Your task to perform on an android device: turn pop-ups off in chrome Image 0: 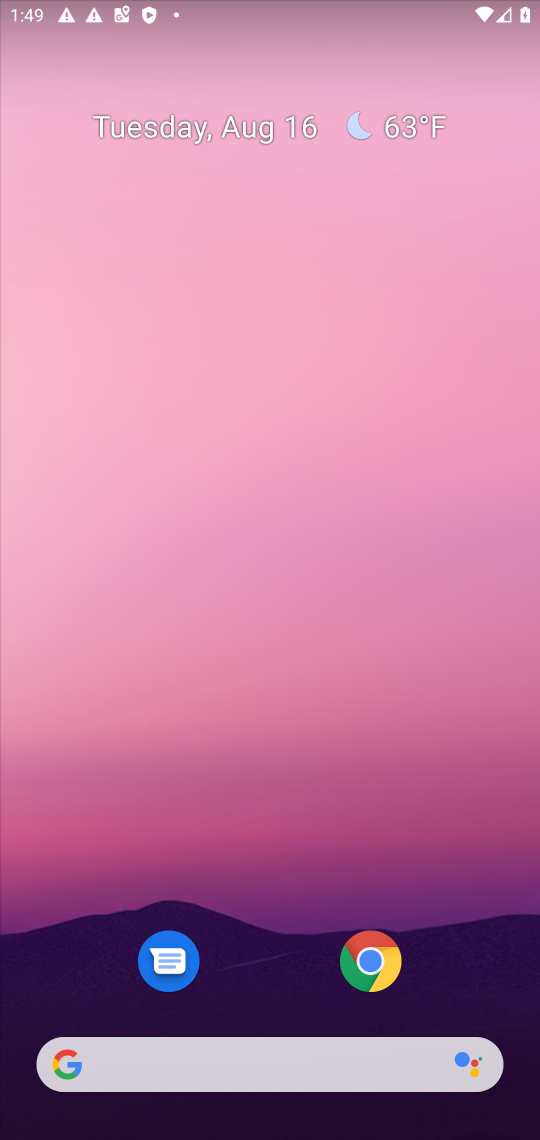
Step 0: drag from (499, 968) to (196, 11)
Your task to perform on an android device: turn pop-ups off in chrome Image 1: 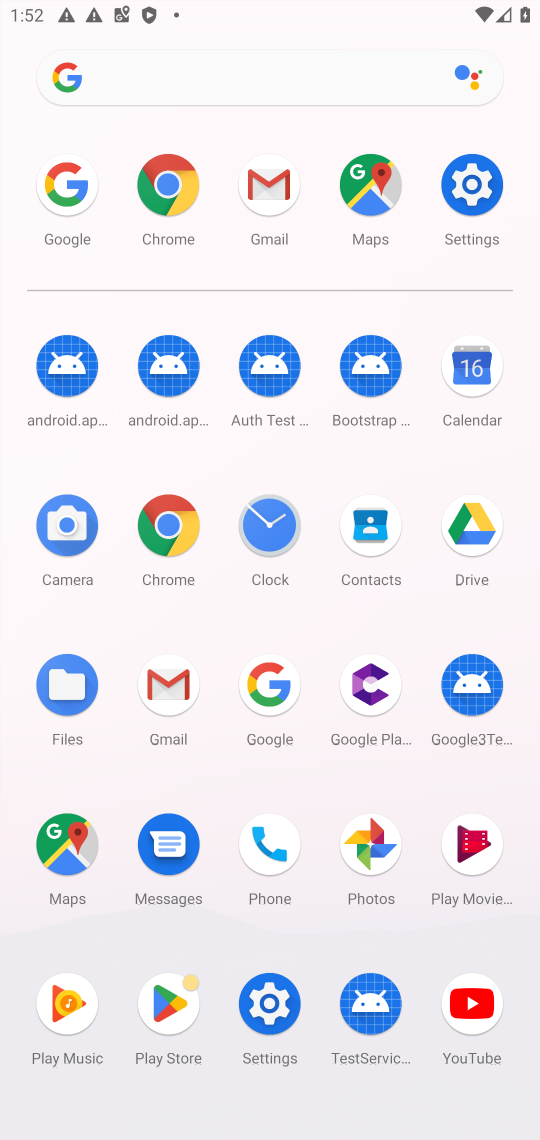
Step 1: click (157, 516)
Your task to perform on an android device: turn pop-ups off in chrome Image 2: 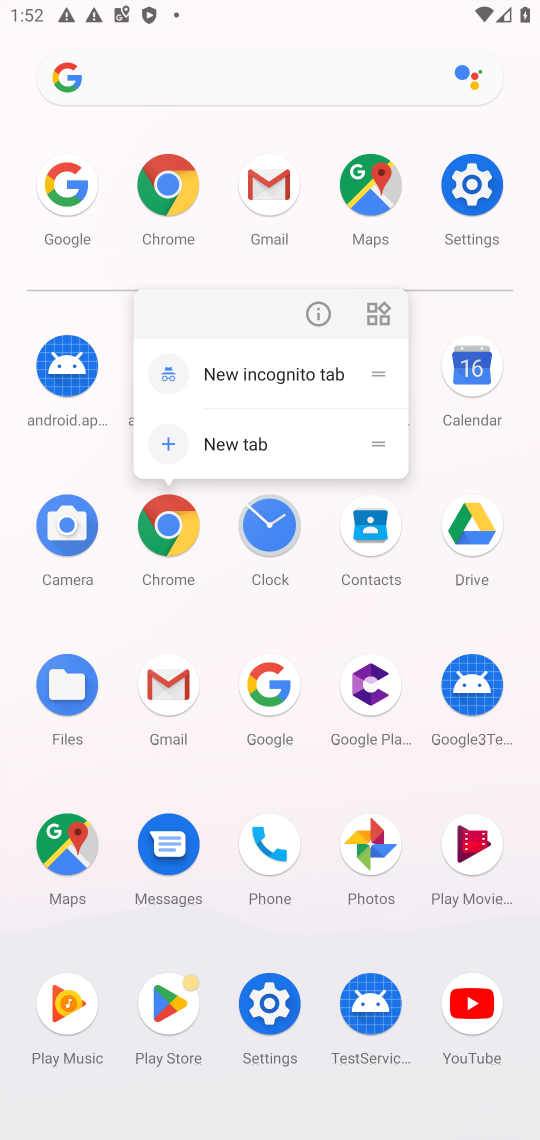
Step 2: click (165, 523)
Your task to perform on an android device: turn pop-ups off in chrome Image 3: 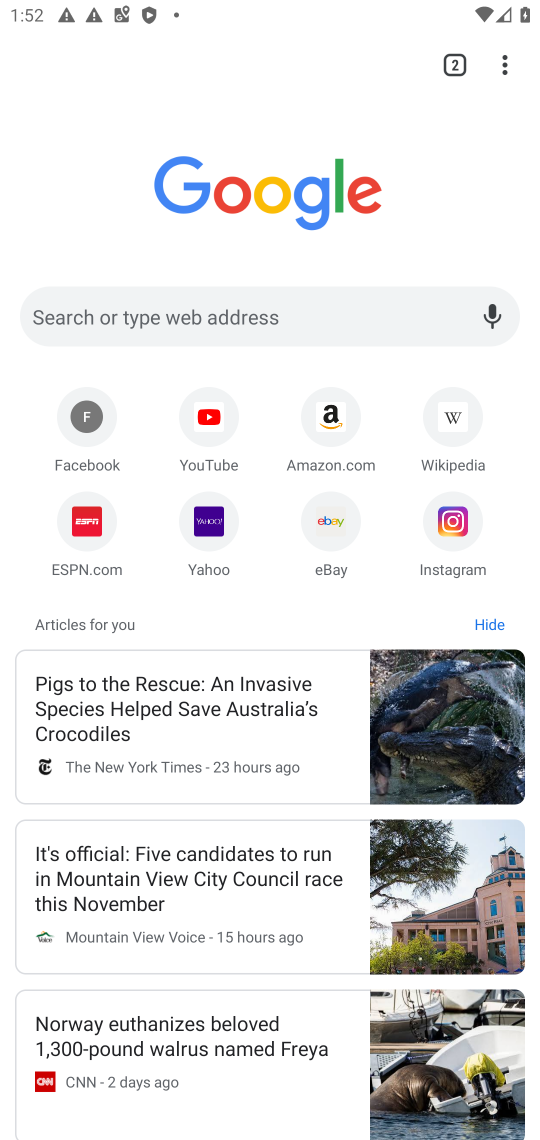
Step 3: click (499, 69)
Your task to perform on an android device: turn pop-ups off in chrome Image 4: 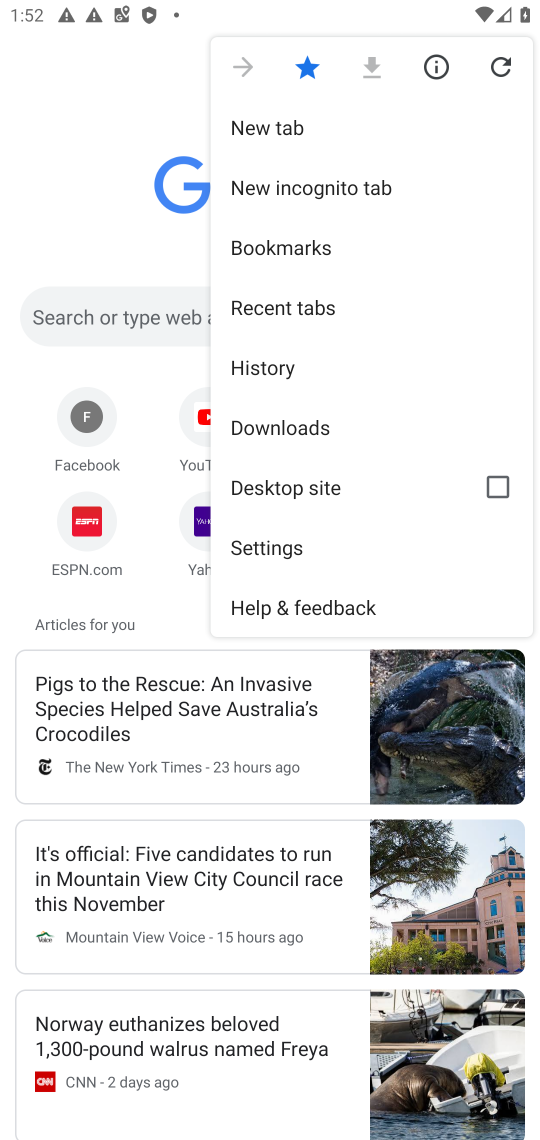
Step 4: click (264, 544)
Your task to perform on an android device: turn pop-ups off in chrome Image 5: 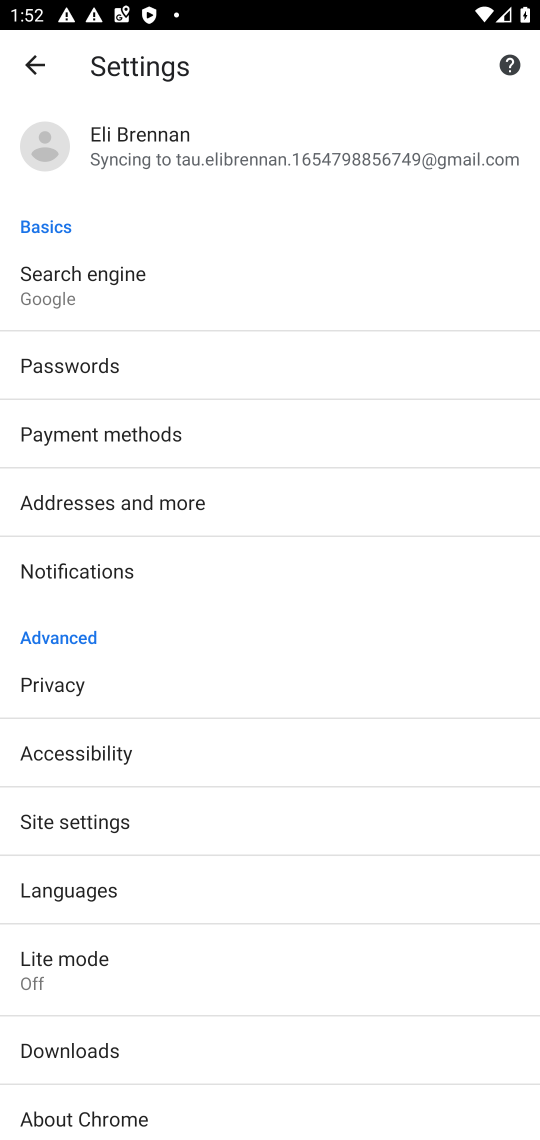
Step 5: click (123, 840)
Your task to perform on an android device: turn pop-ups off in chrome Image 6: 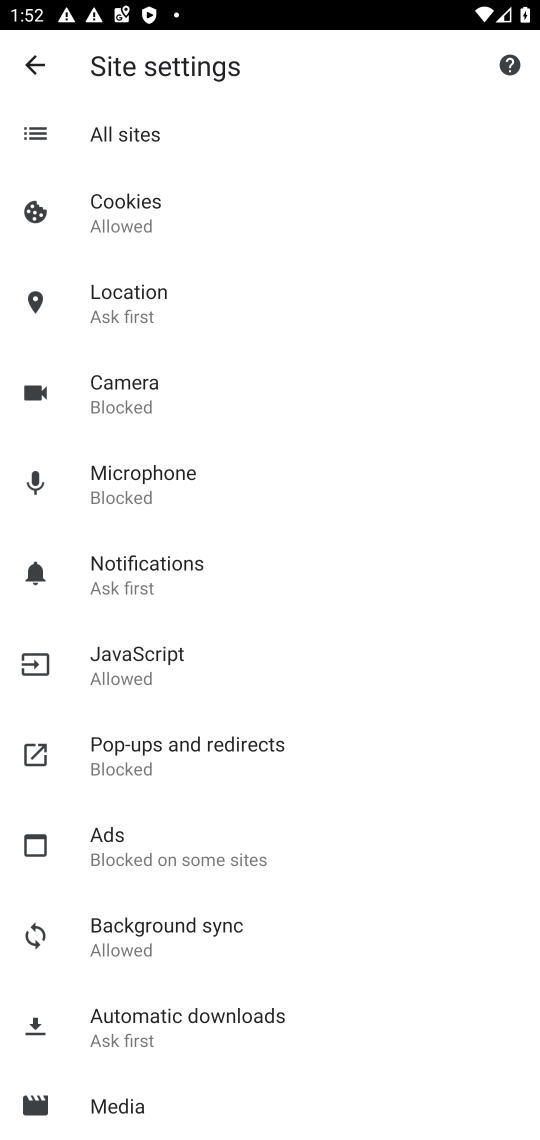
Step 6: click (153, 760)
Your task to perform on an android device: turn pop-ups off in chrome Image 7: 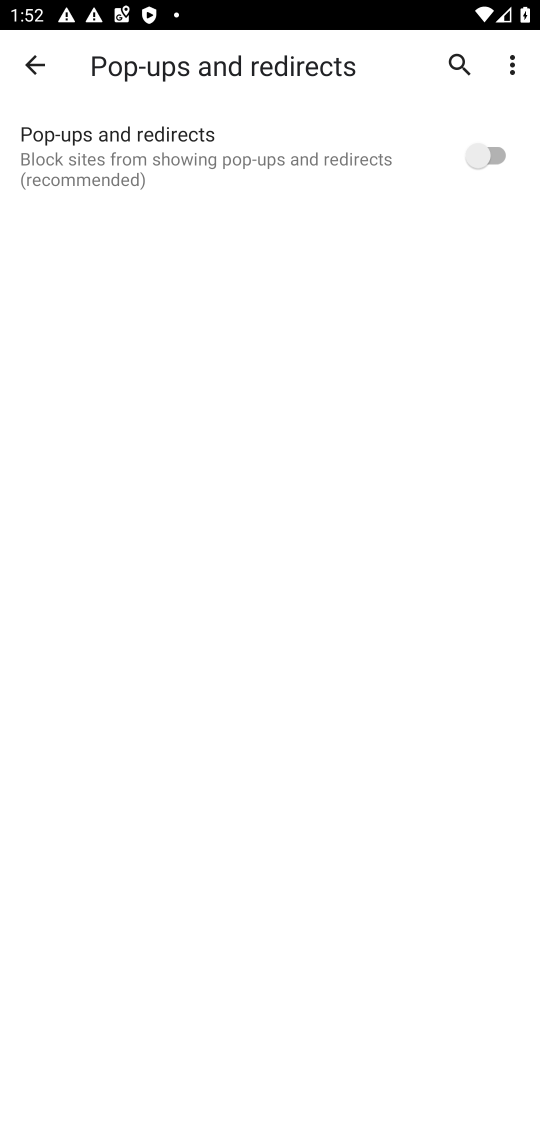
Step 7: click (457, 149)
Your task to perform on an android device: turn pop-ups off in chrome Image 8: 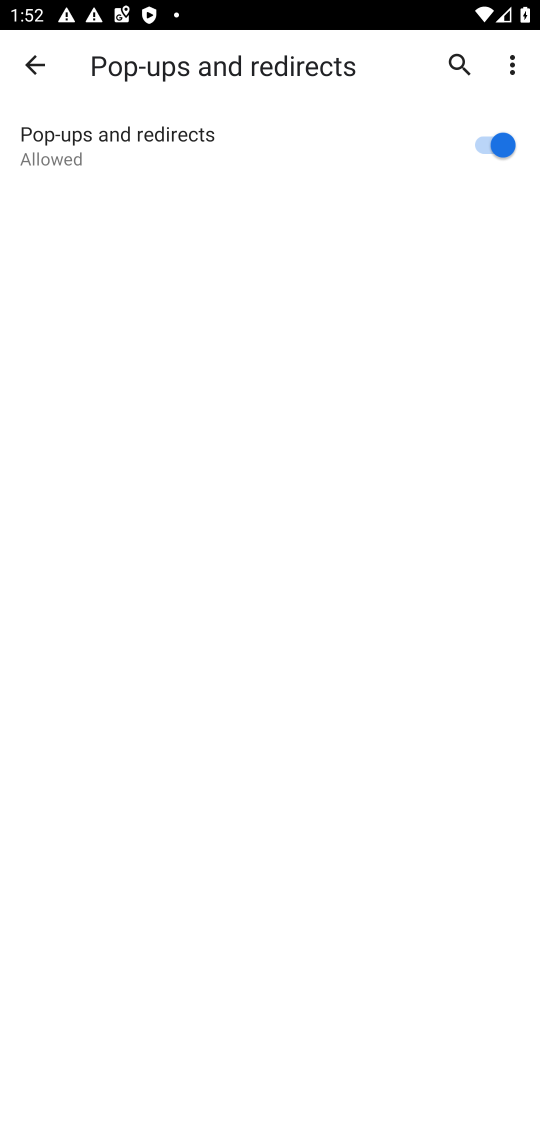
Step 8: click (457, 149)
Your task to perform on an android device: turn pop-ups off in chrome Image 9: 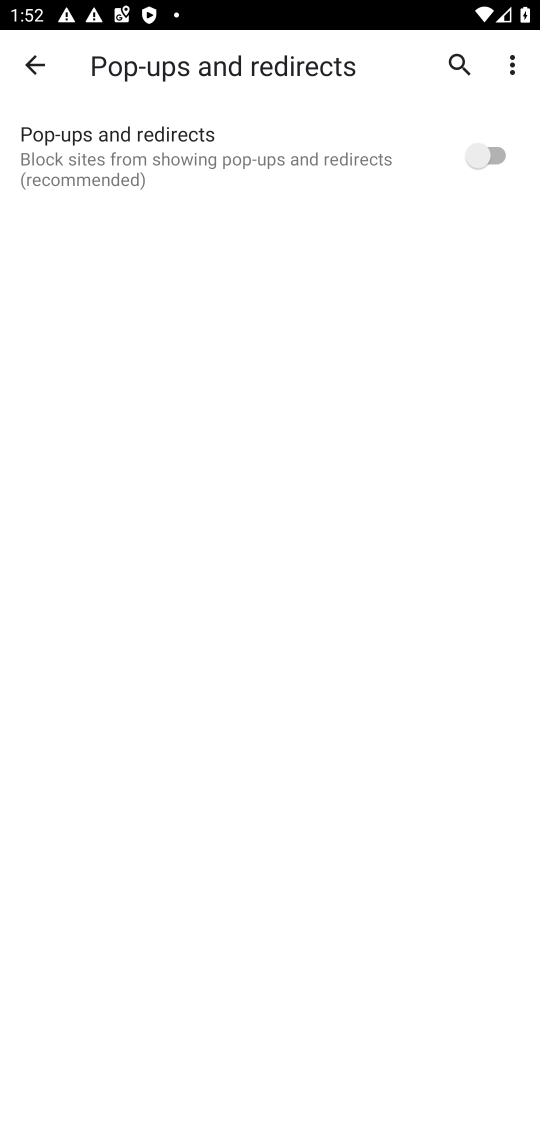
Step 9: task complete